Your task to perform on an android device: turn on the 12-hour format for clock Image 0: 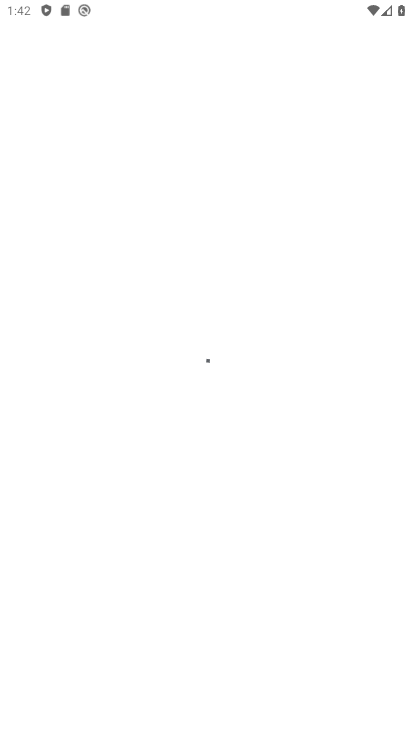
Step 0: press home button
Your task to perform on an android device: turn on the 12-hour format for clock Image 1: 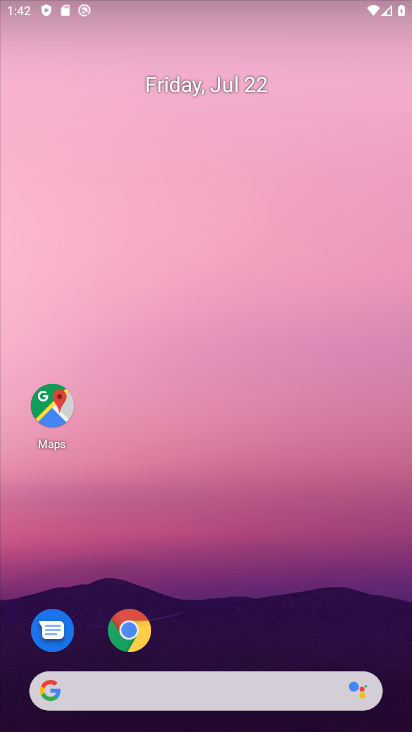
Step 1: drag from (196, 655) to (214, 100)
Your task to perform on an android device: turn on the 12-hour format for clock Image 2: 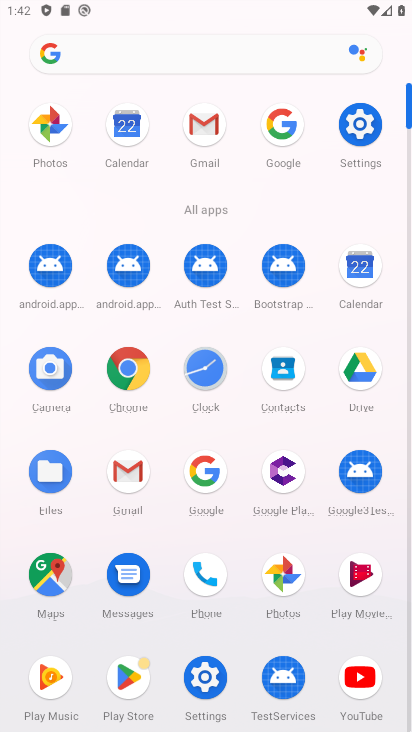
Step 2: click (203, 374)
Your task to perform on an android device: turn on the 12-hour format for clock Image 3: 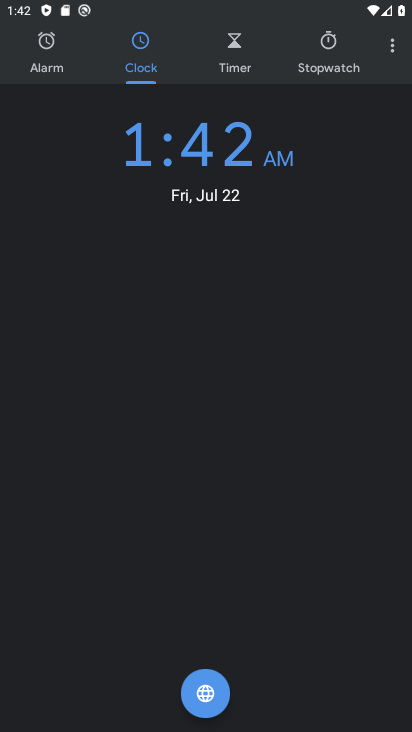
Step 3: click (388, 45)
Your task to perform on an android device: turn on the 12-hour format for clock Image 4: 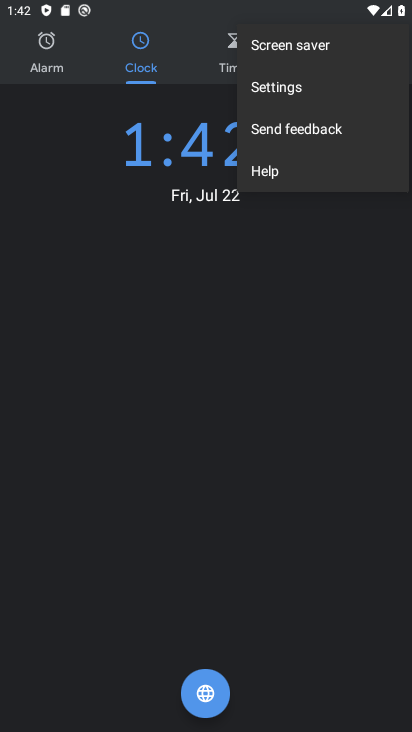
Step 4: click (280, 95)
Your task to perform on an android device: turn on the 12-hour format for clock Image 5: 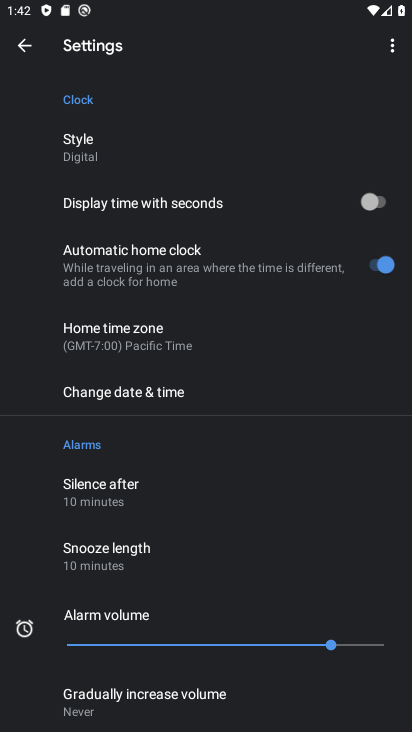
Step 5: click (141, 385)
Your task to perform on an android device: turn on the 12-hour format for clock Image 6: 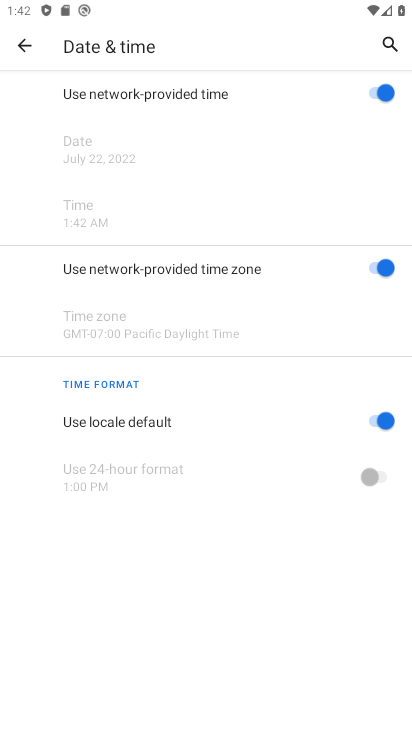
Step 6: click (378, 418)
Your task to perform on an android device: turn on the 12-hour format for clock Image 7: 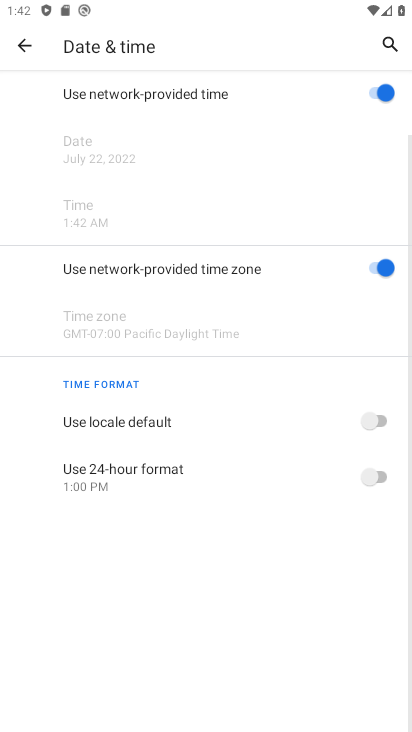
Step 7: task complete